Your task to perform on an android device: turn off location Image 0: 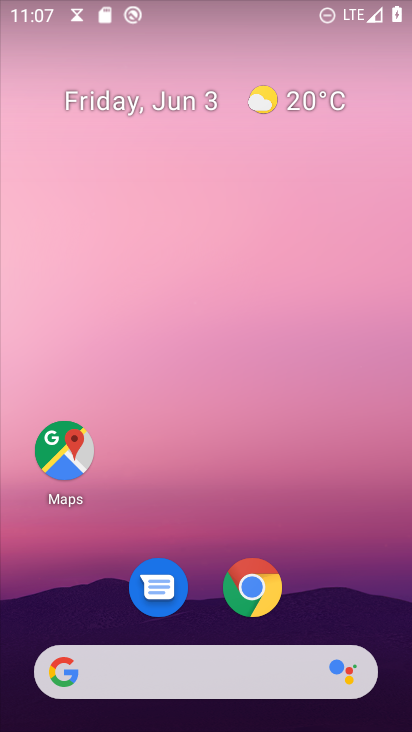
Step 0: drag from (307, 354) to (254, 8)
Your task to perform on an android device: turn off location Image 1: 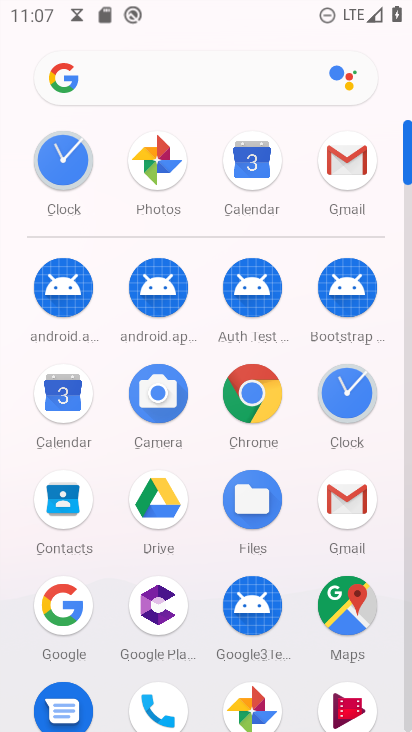
Step 1: drag from (209, 519) to (214, 6)
Your task to perform on an android device: turn off location Image 2: 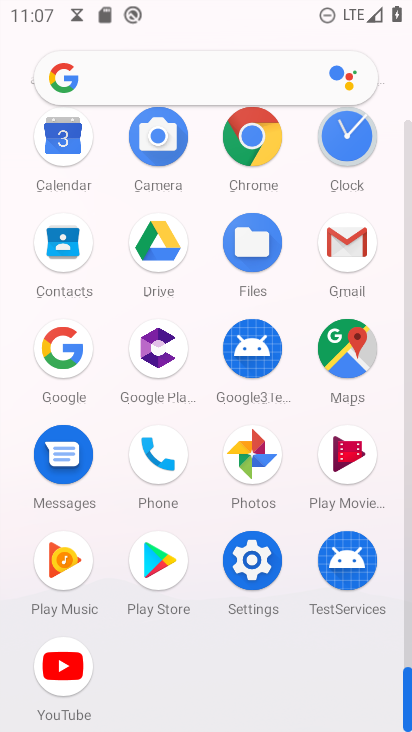
Step 2: click (245, 569)
Your task to perform on an android device: turn off location Image 3: 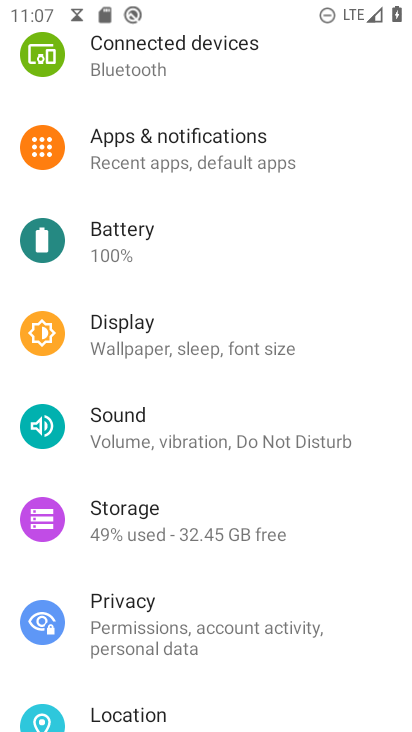
Step 3: click (200, 715)
Your task to perform on an android device: turn off location Image 4: 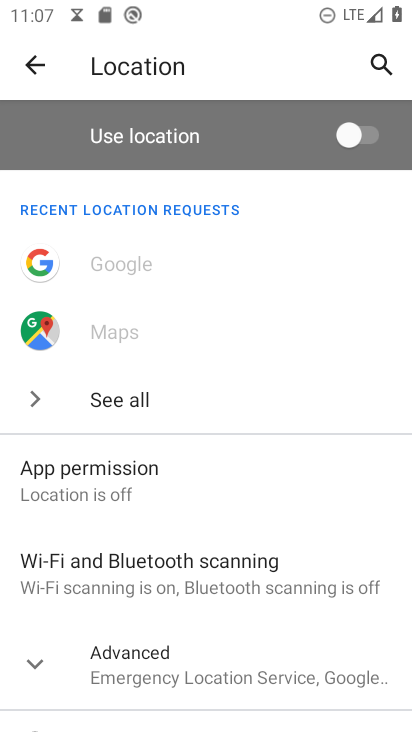
Step 4: task complete